Your task to perform on an android device: Open Google Maps and go to "Timeline" Image 0: 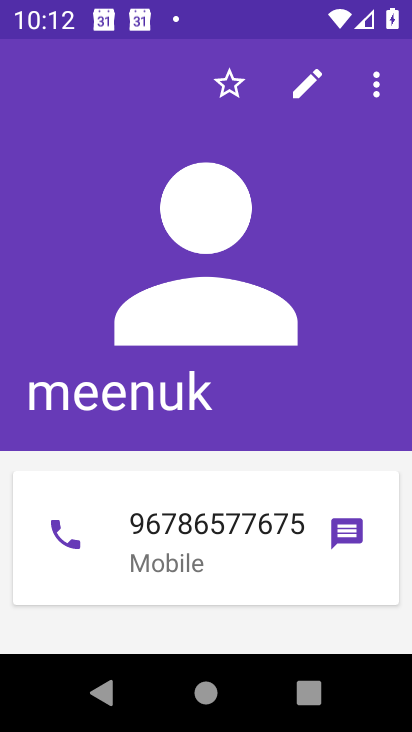
Step 0: press back button
Your task to perform on an android device: Open Google Maps and go to "Timeline" Image 1: 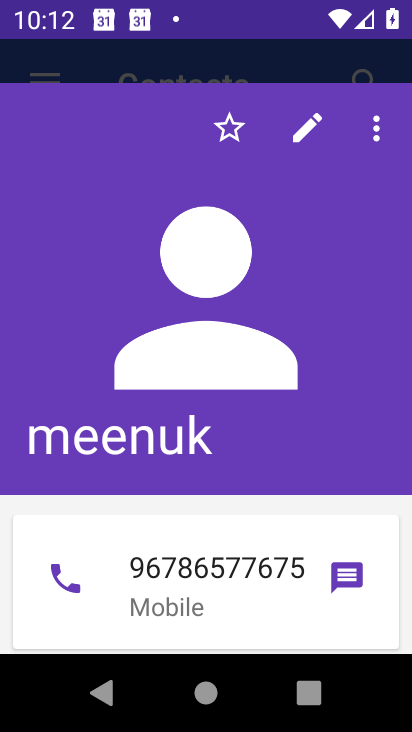
Step 1: press back button
Your task to perform on an android device: Open Google Maps and go to "Timeline" Image 2: 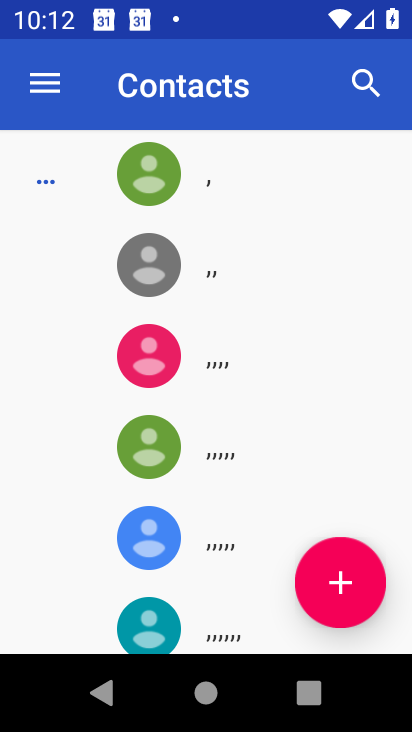
Step 2: press back button
Your task to perform on an android device: Open Google Maps and go to "Timeline" Image 3: 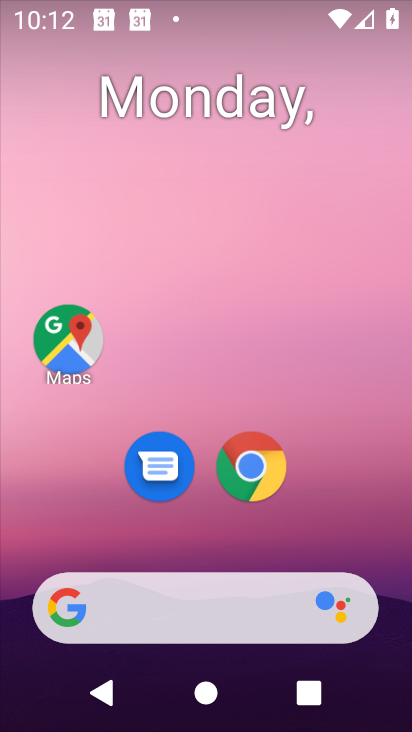
Step 3: click (57, 350)
Your task to perform on an android device: Open Google Maps and go to "Timeline" Image 4: 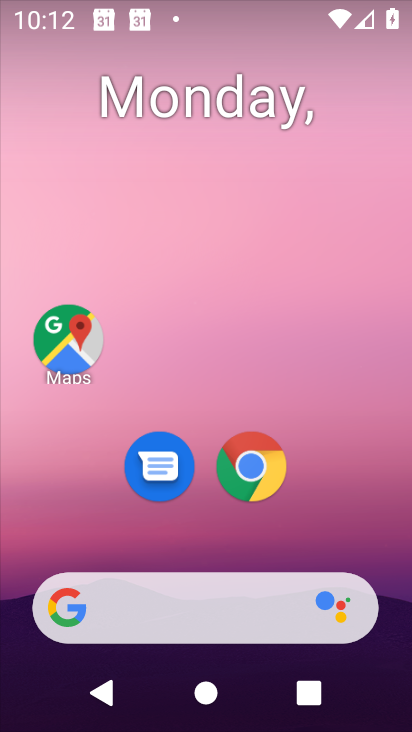
Step 4: click (60, 348)
Your task to perform on an android device: Open Google Maps and go to "Timeline" Image 5: 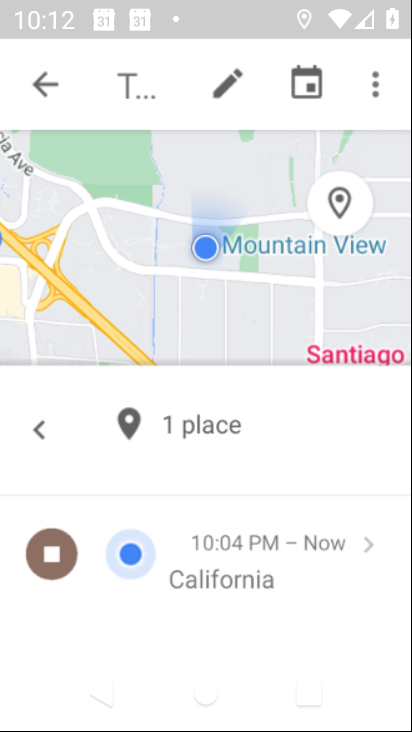
Step 5: click (47, 77)
Your task to perform on an android device: Open Google Maps and go to "Timeline" Image 6: 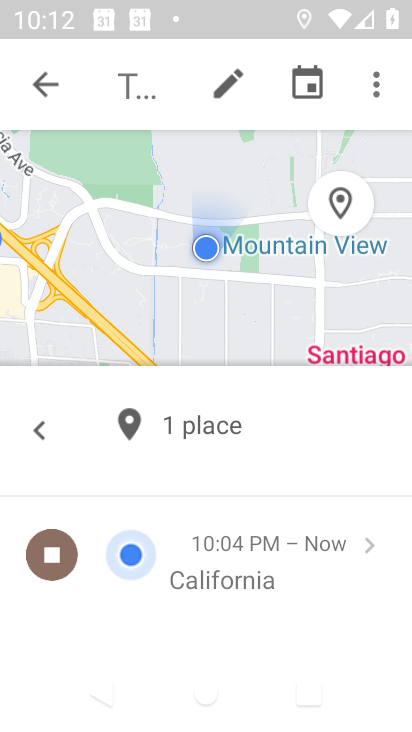
Step 6: click (46, 91)
Your task to perform on an android device: Open Google Maps and go to "Timeline" Image 7: 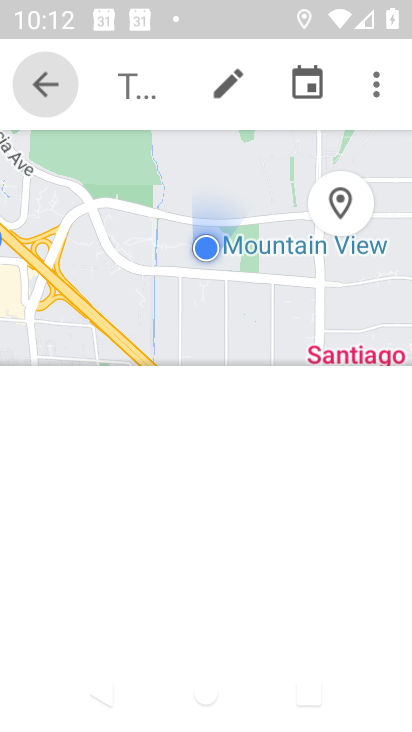
Step 7: click (46, 91)
Your task to perform on an android device: Open Google Maps and go to "Timeline" Image 8: 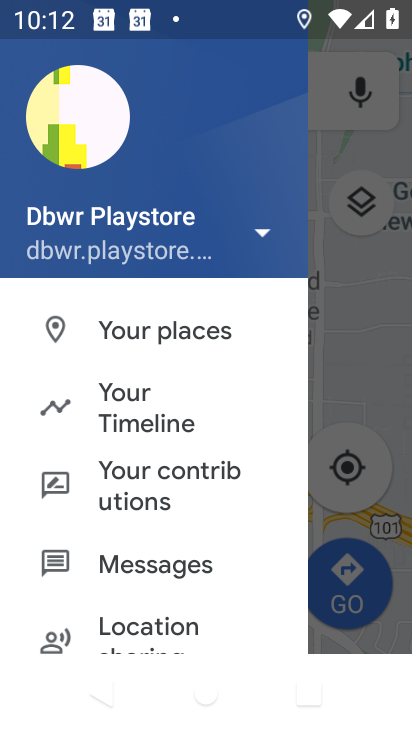
Step 8: click (137, 415)
Your task to perform on an android device: Open Google Maps and go to "Timeline" Image 9: 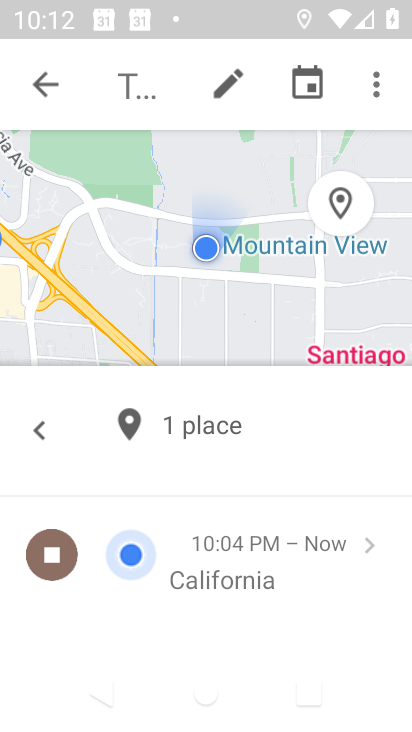
Step 9: task complete